Your task to perform on an android device: Open the web browser Image 0: 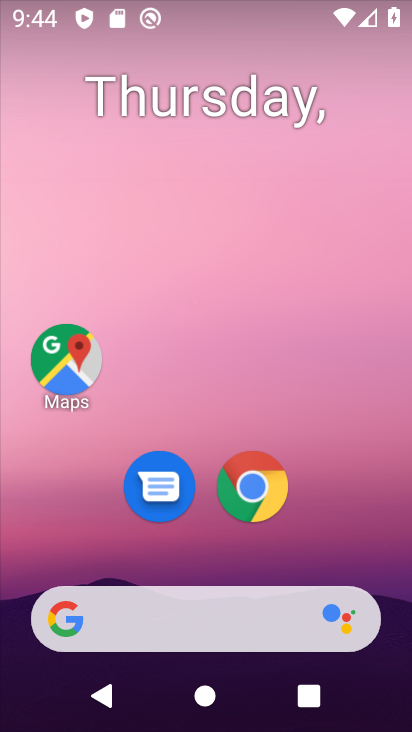
Step 0: click (252, 485)
Your task to perform on an android device: Open the web browser Image 1: 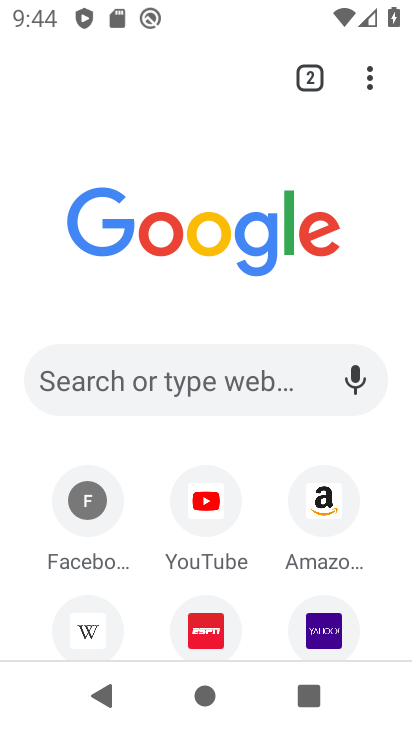
Step 1: task complete